Your task to perform on an android device: change the upload size in google photos Image 0: 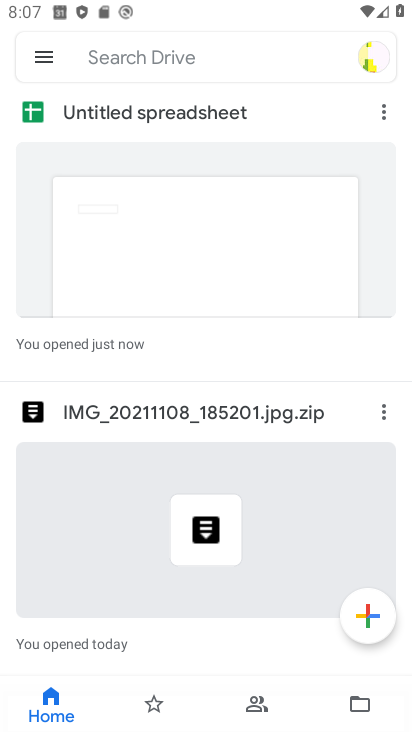
Step 0: press home button
Your task to perform on an android device: change the upload size in google photos Image 1: 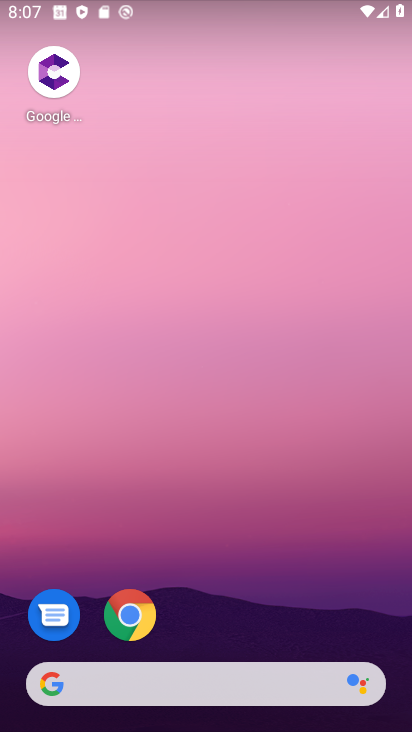
Step 1: drag from (218, 632) to (322, 26)
Your task to perform on an android device: change the upload size in google photos Image 2: 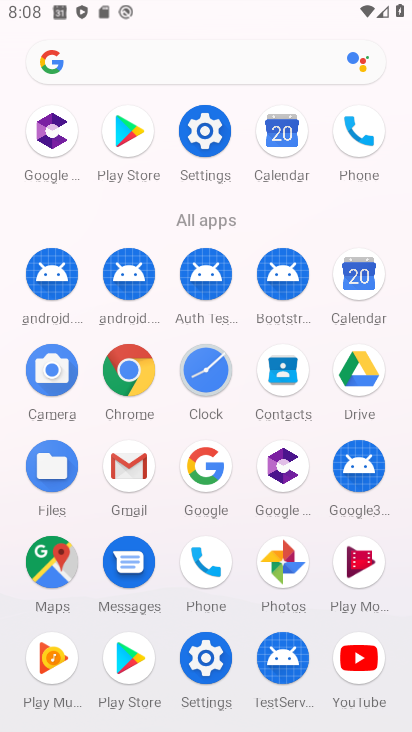
Step 2: click (282, 561)
Your task to perform on an android device: change the upload size in google photos Image 3: 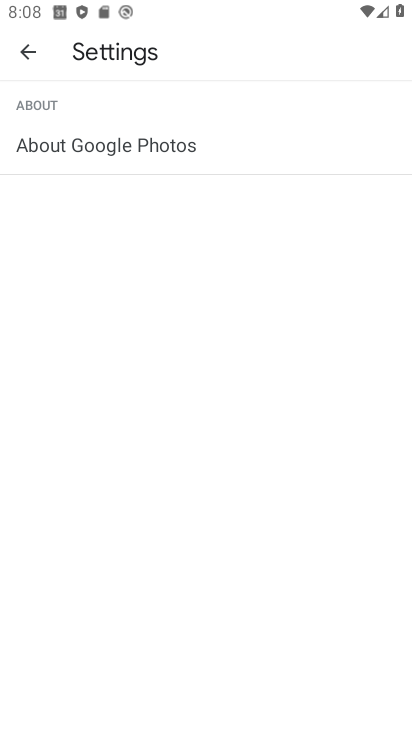
Step 3: press back button
Your task to perform on an android device: change the upload size in google photos Image 4: 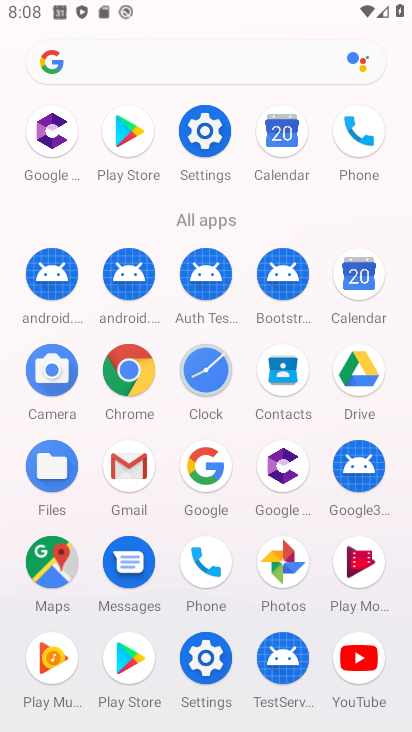
Step 4: click (284, 562)
Your task to perform on an android device: change the upload size in google photos Image 5: 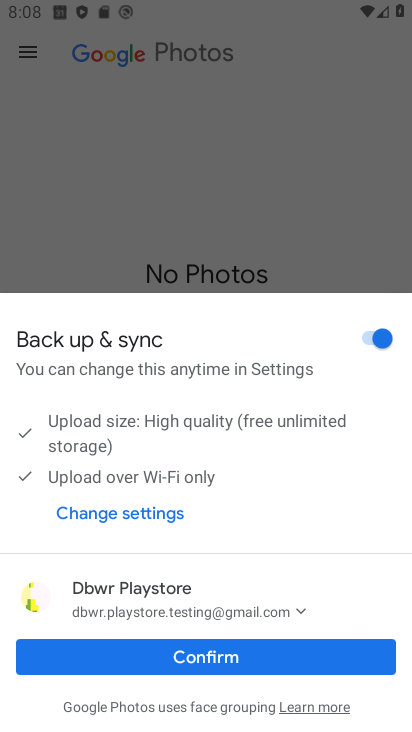
Step 5: click (247, 654)
Your task to perform on an android device: change the upload size in google photos Image 6: 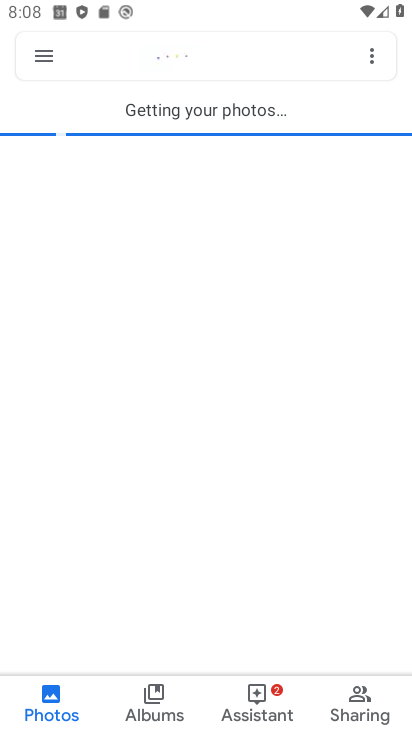
Step 6: click (37, 54)
Your task to perform on an android device: change the upload size in google photos Image 7: 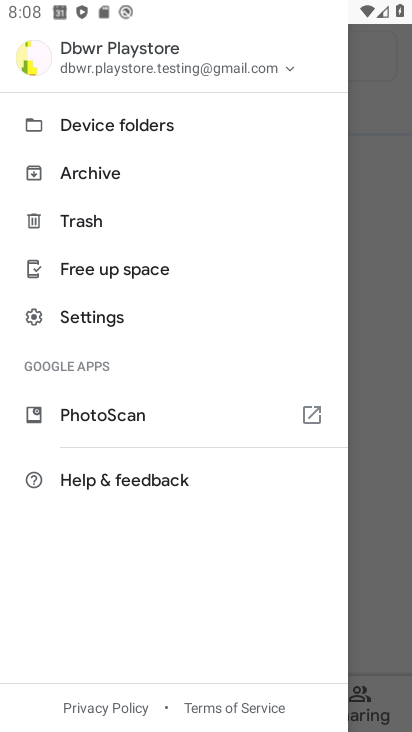
Step 7: click (114, 324)
Your task to perform on an android device: change the upload size in google photos Image 8: 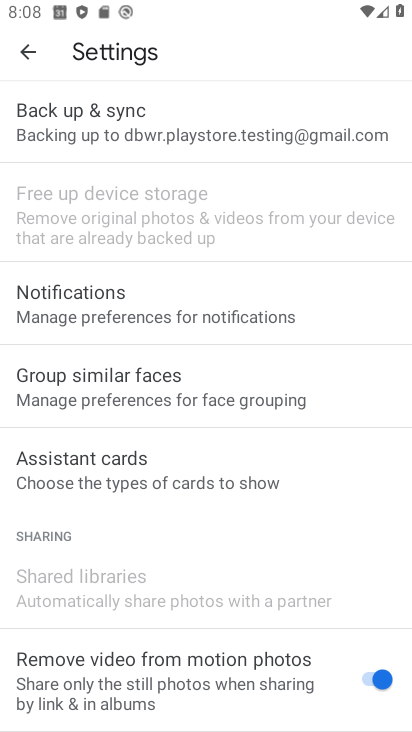
Step 8: click (135, 128)
Your task to perform on an android device: change the upload size in google photos Image 9: 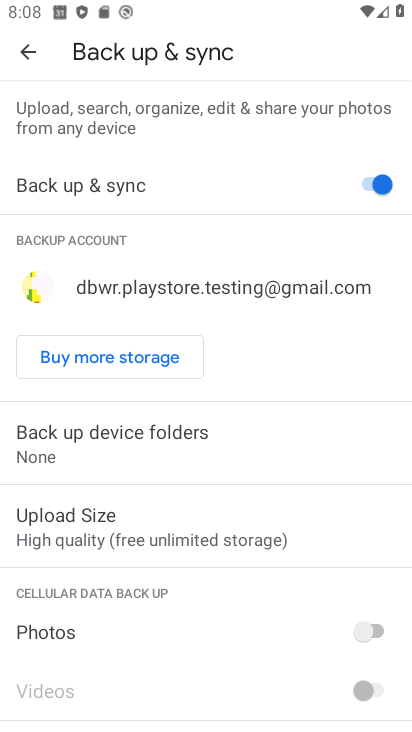
Step 9: click (180, 533)
Your task to perform on an android device: change the upload size in google photos Image 10: 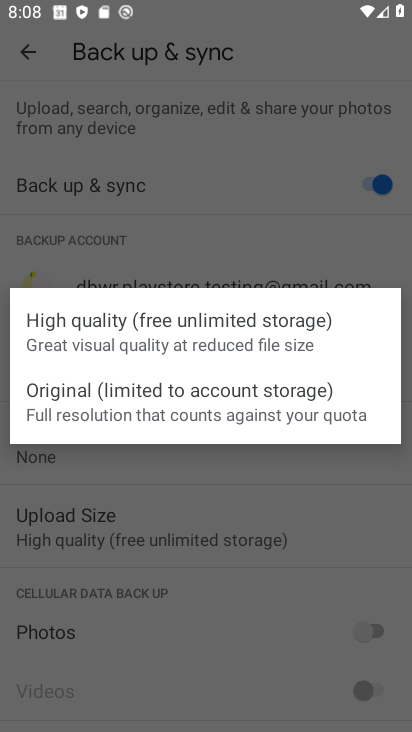
Step 10: click (176, 410)
Your task to perform on an android device: change the upload size in google photos Image 11: 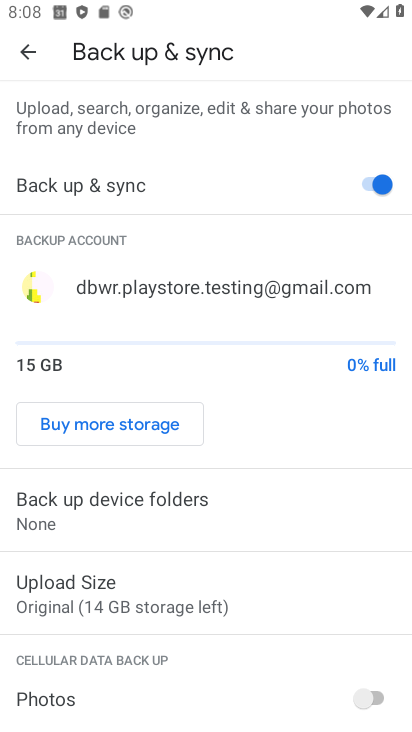
Step 11: task complete